Your task to perform on an android device: Open the calendar app, open the side menu, and click the "Day" option Image 0: 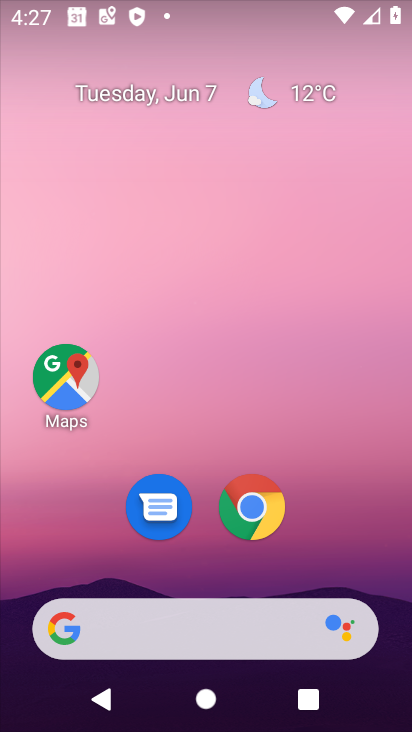
Step 0: drag from (337, 576) to (316, 31)
Your task to perform on an android device: Open the calendar app, open the side menu, and click the "Day" option Image 1: 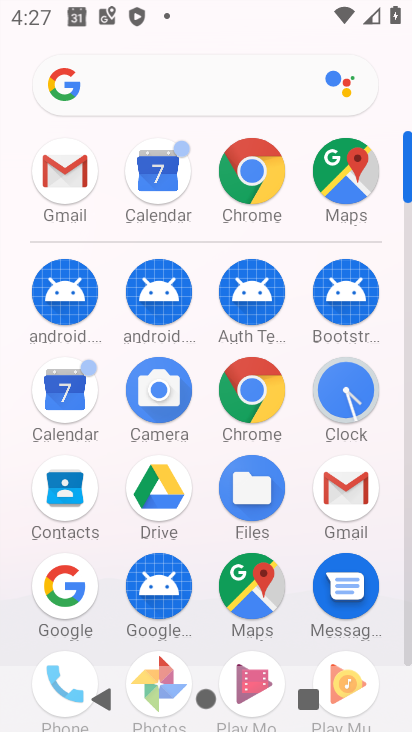
Step 1: drag from (8, 551) to (13, 234)
Your task to perform on an android device: Open the calendar app, open the side menu, and click the "Day" option Image 2: 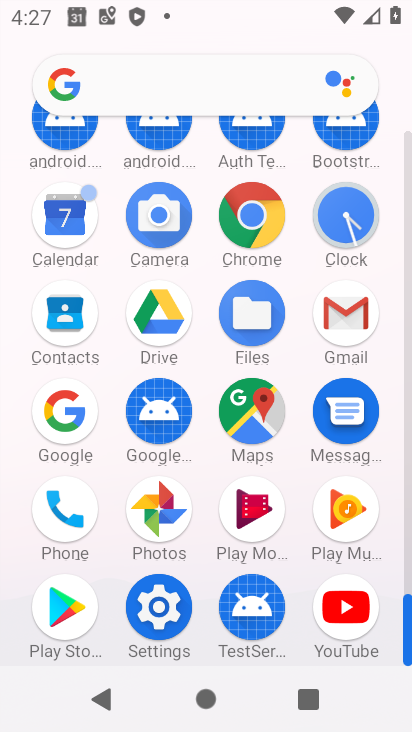
Step 2: drag from (14, 221) to (14, 455)
Your task to perform on an android device: Open the calendar app, open the side menu, and click the "Day" option Image 3: 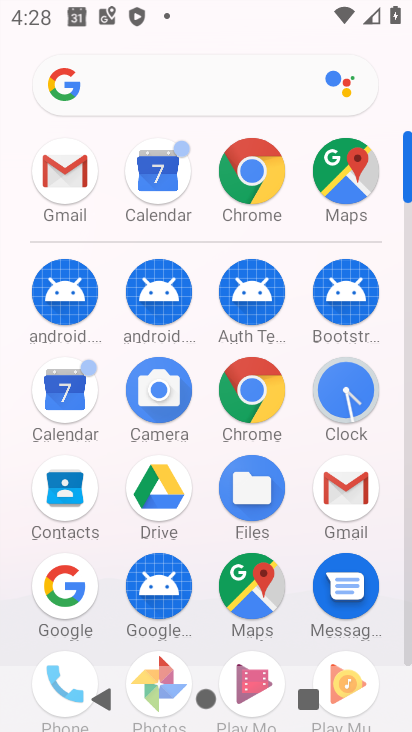
Step 3: click (71, 378)
Your task to perform on an android device: Open the calendar app, open the side menu, and click the "Day" option Image 4: 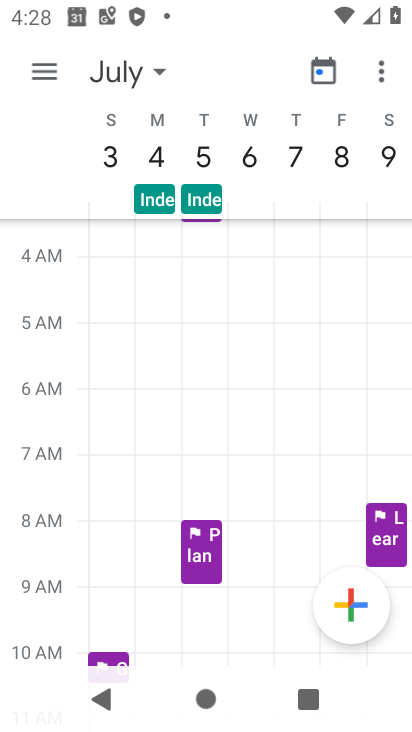
Step 4: click (52, 65)
Your task to perform on an android device: Open the calendar app, open the side menu, and click the "Day" option Image 5: 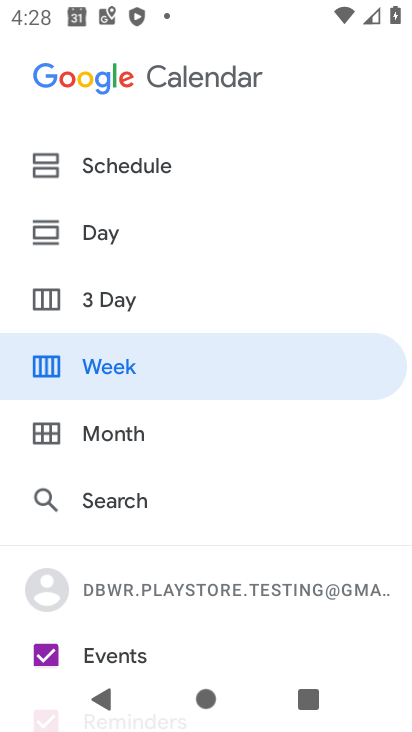
Step 5: click (123, 230)
Your task to perform on an android device: Open the calendar app, open the side menu, and click the "Day" option Image 6: 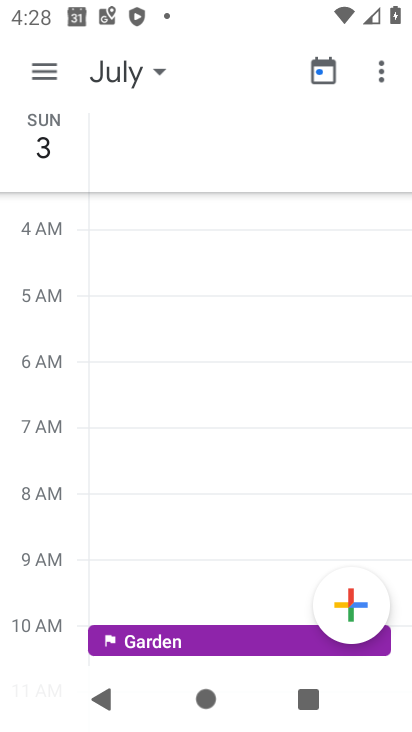
Step 6: task complete